Your task to perform on an android device: empty trash in the gmail app Image 0: 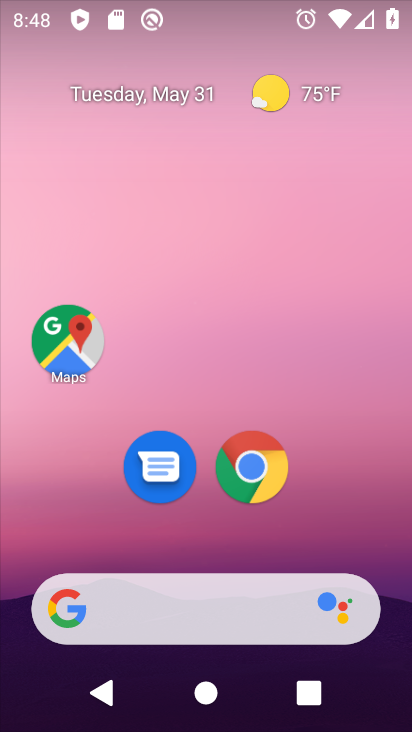
Step 0: drag from (238, 602) to (341, 124)
Your task to perform on an android device: empty trash in the gmail app Image 1: 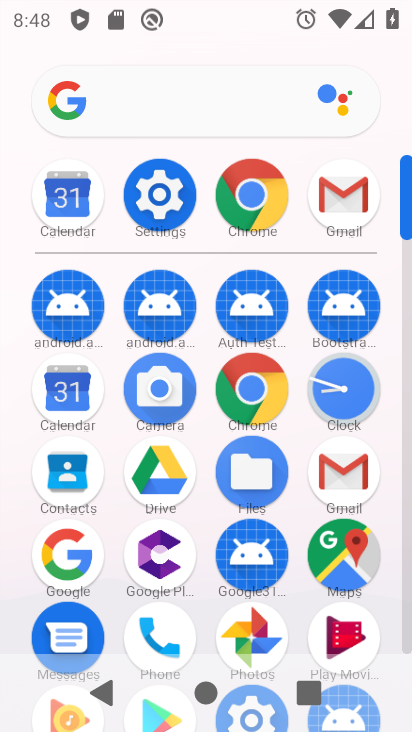
Step 1: click (361, 477)
Your task to perform on an android device: empty trash in the gmail app Image 2: 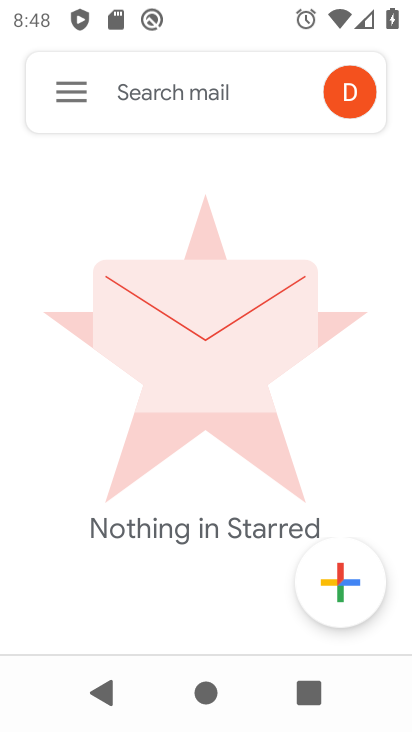
Step 2: click (52, 94)
Your task to perform on an android device: empty trash in the gmail app Image 3: 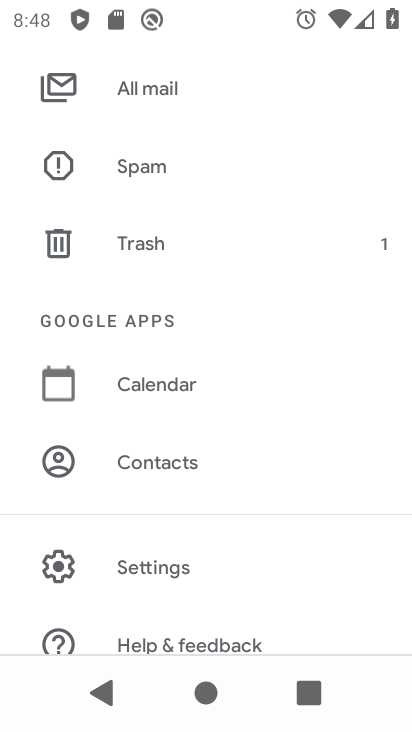
Step 3: click (127, 229)
Your task to perform on an android device: empty trash in the gmail app Image 4: 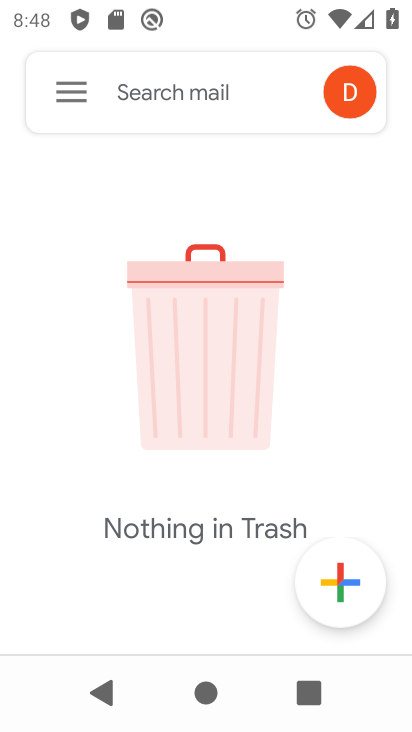
Step 4: task complete